Your task to perform on an android device: Go to settings Image 0: 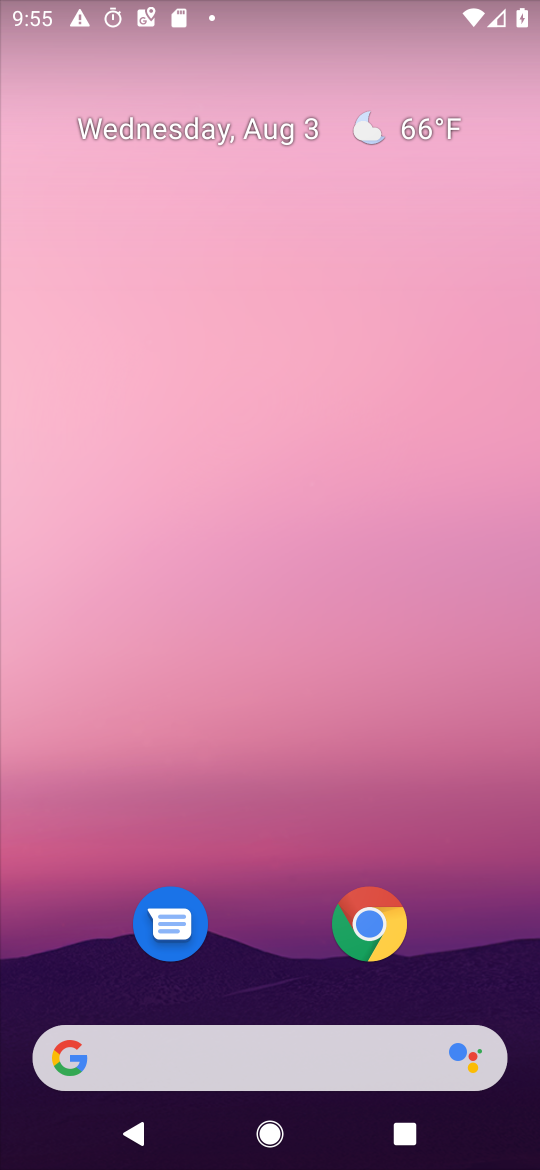
Step 0: press home button
Your task to perform on an android device: Go to settings Image 1: 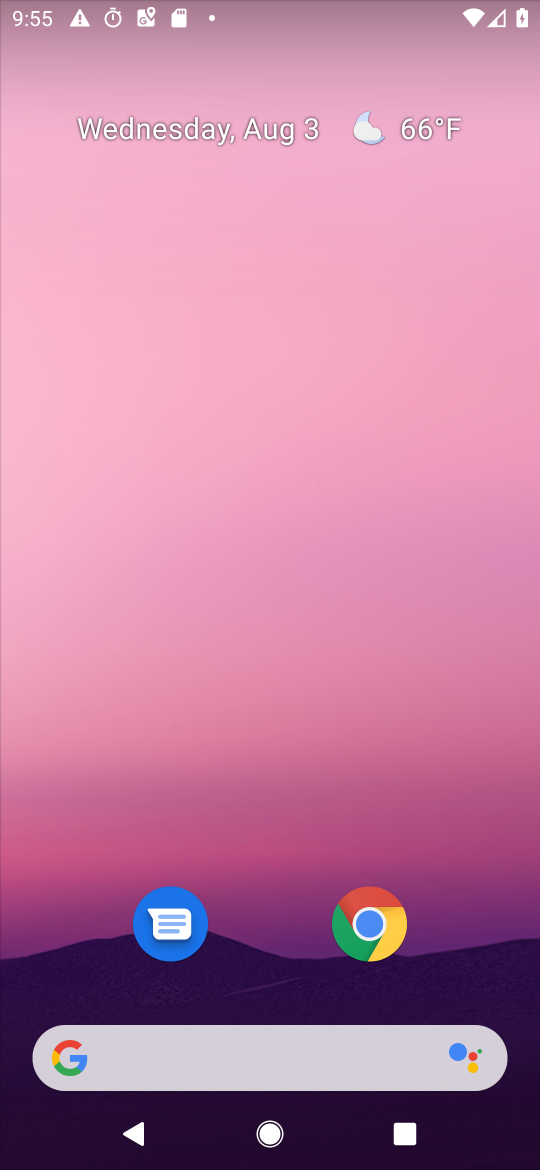
Step 1: click (352, 129)
Your task to perform on an android device: Go to settings Image 2: 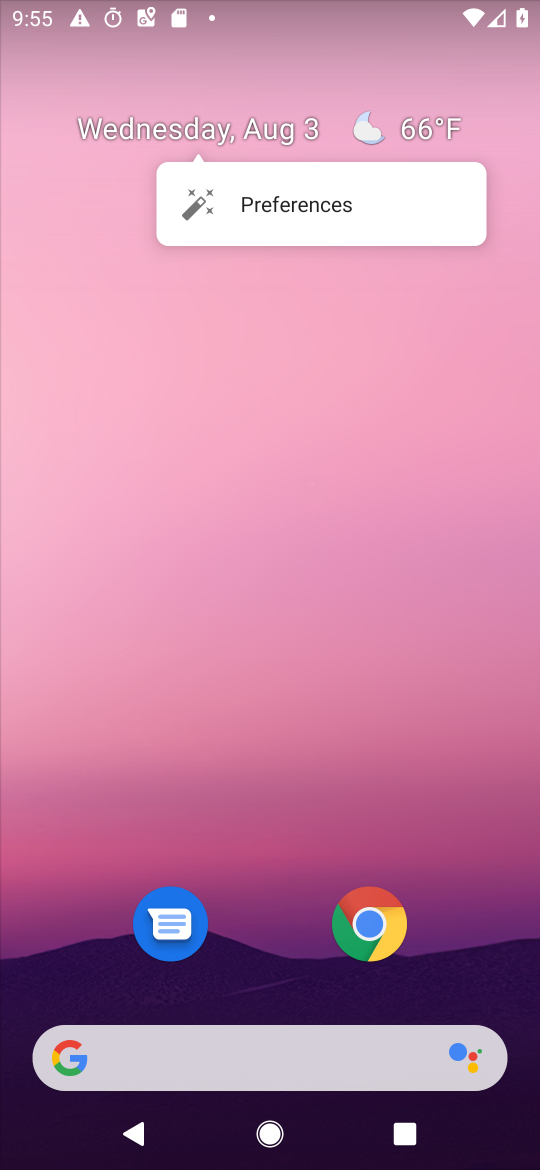
Step 2: drag from (277, 987) to (260, 171)
Your task to perform on an android device: Go to settings Image 3: 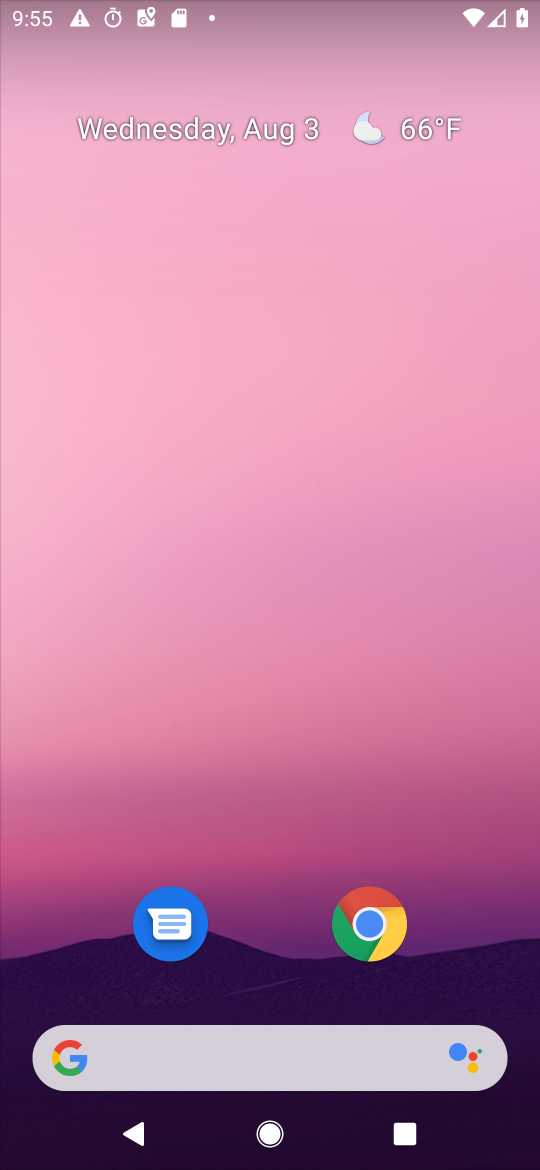
Step 3: drag from (285, 973) to (336, 167)
Your task to perform on an android device: Go to settings Image 4: 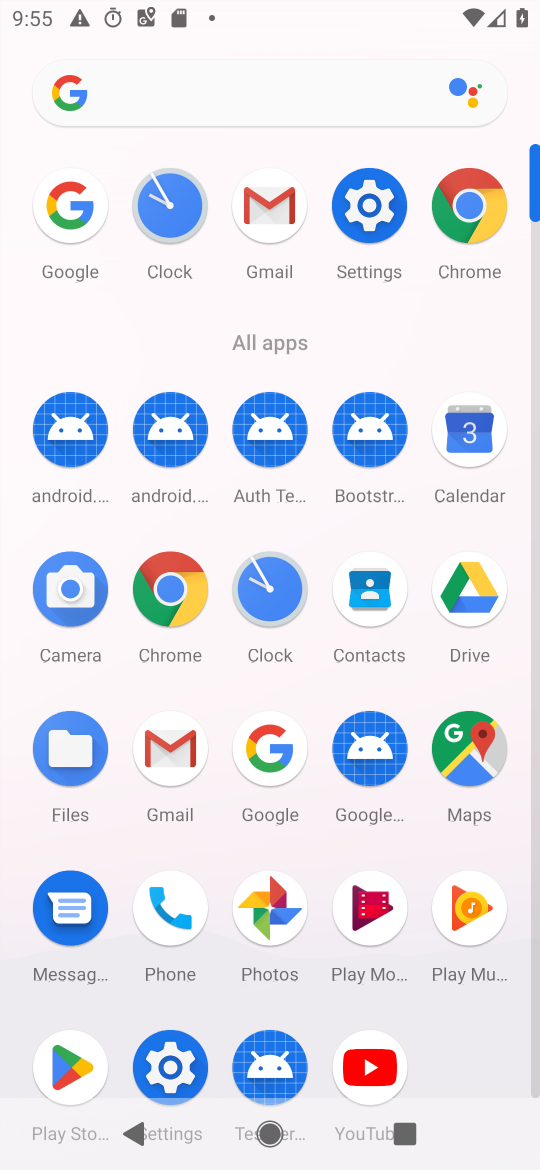
Step 4: click (368, 196)
Your task to perform on an android device: Go to settings Image 5: 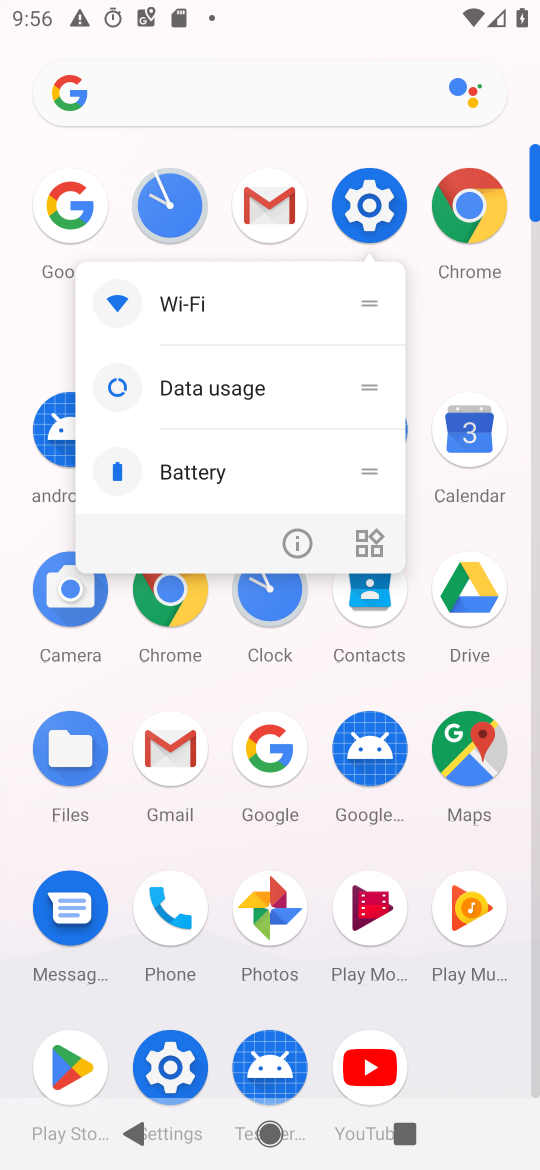
Step 5: click (359, 198)
Your task to perform on an android device: Go to settings Image 6: 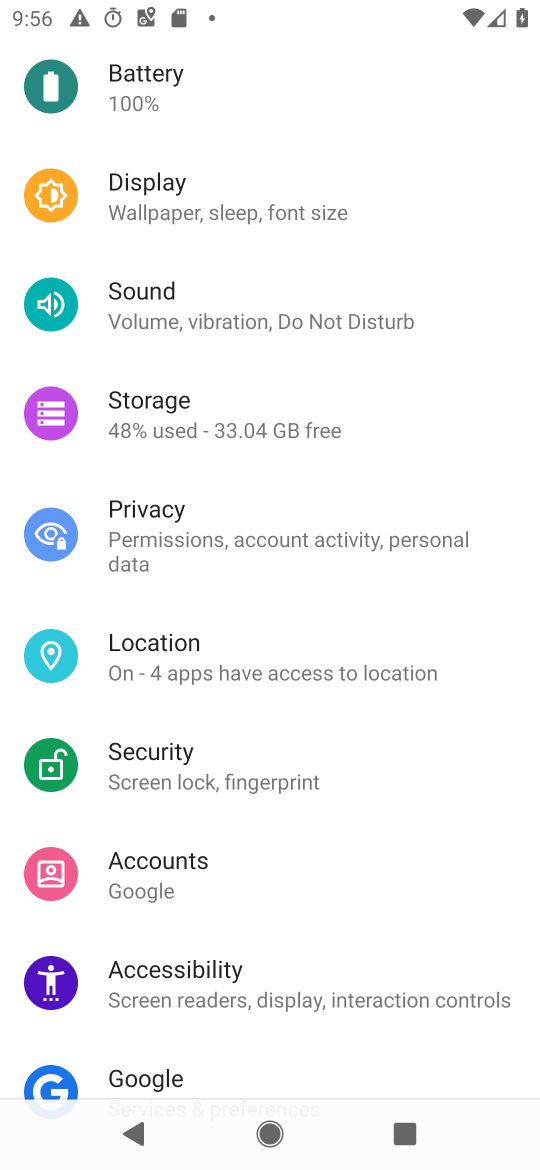
Step 6: task complete